Your task to perform on an android device: open a bookmark in the chrome app Image 0: 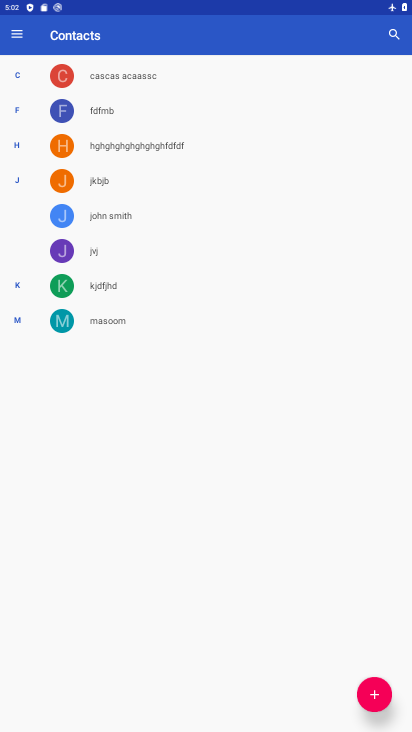
Step 0: press home button
Your task to perform on an android device: open a bookmark in the chrome app Image 1: 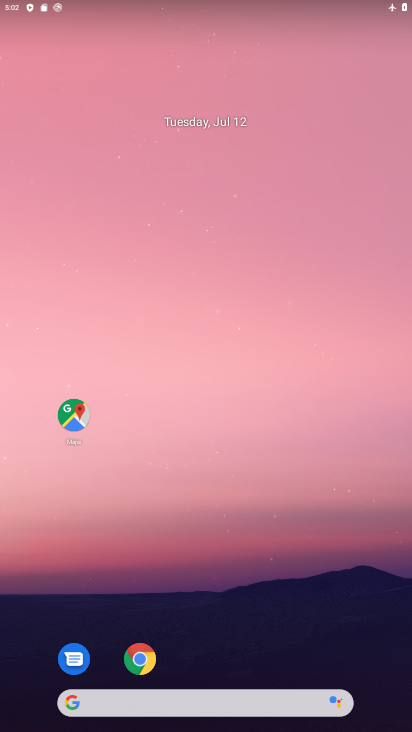
Step 1: click (138, 659)
Your task to perform on an android device: open a bookmark in the chrome app Image 2: 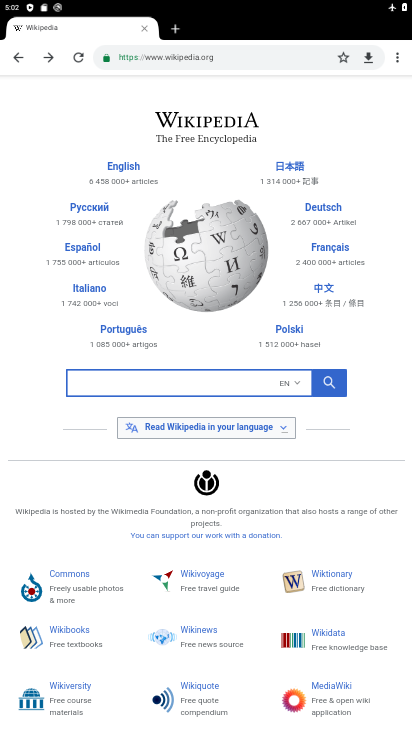
Step 2: click (394, 61)
Your task to perform on an android device: open a bookmark in the chrome app Image 3: 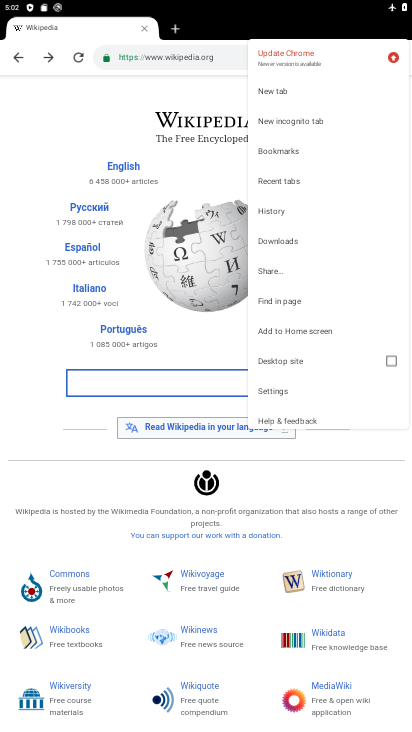
Step 3: click (266, 154)
Your task to perform on an android device: open a bookmark in the chrome app Image 4: 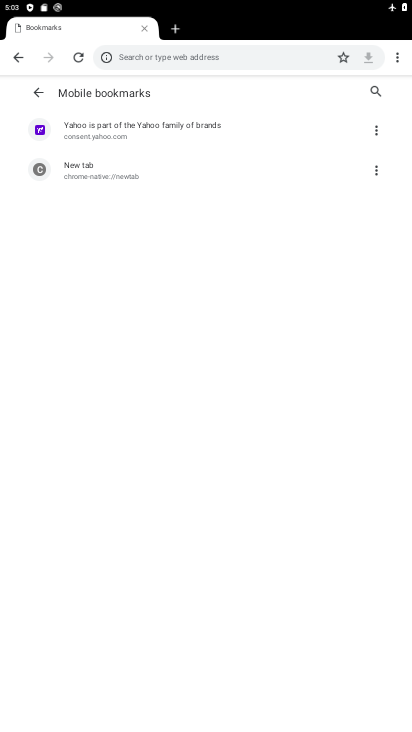
Step 4: click (89, 146)
Your task to perform on an android device: open a bookmark in the chrome app Image 5: 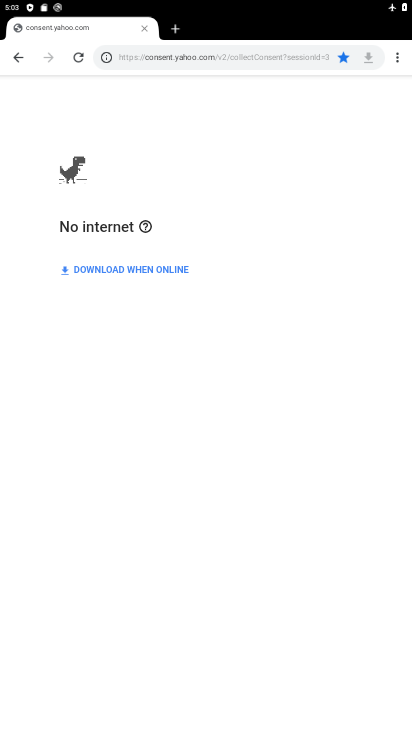
Step 5: task complete